Your task to perform on an android device: Go to display settings Image 0: 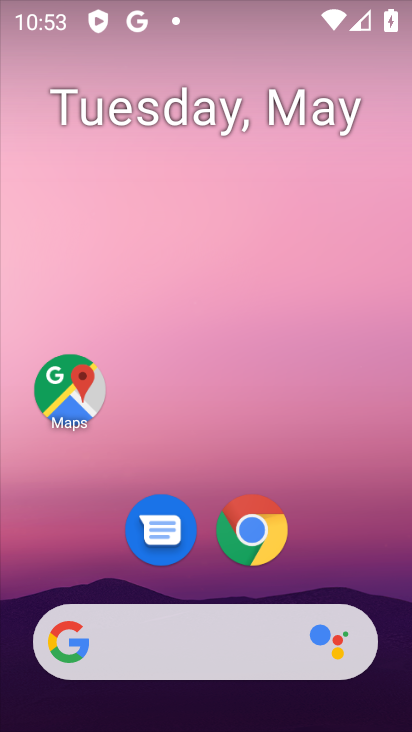
Step 0: click (355, 414)
Your task to perform on an android device: Go to display settings Image 1: 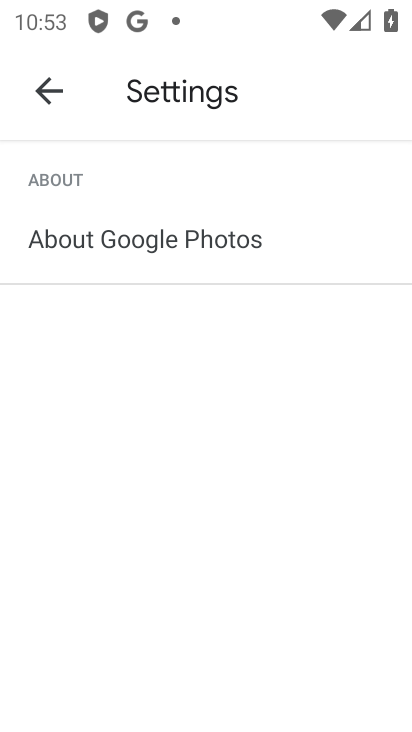
Step 1: press home button
Your task to perform on an android device: Go to display settings Image 2: 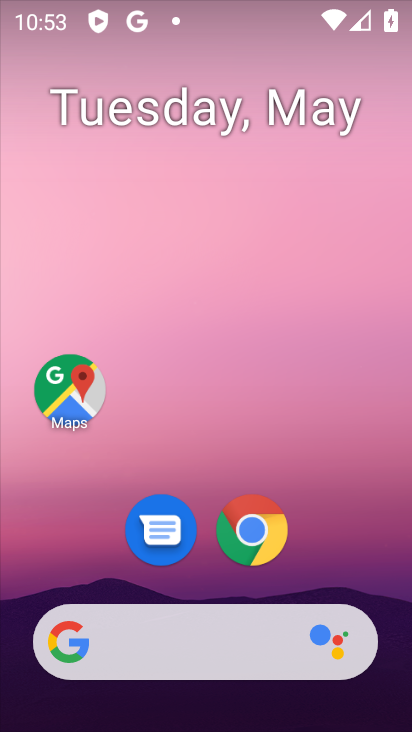
Step 2: drag from (349, 523) to (350, 92)
Your task to perform on an android device: Go to display settings Image 3: 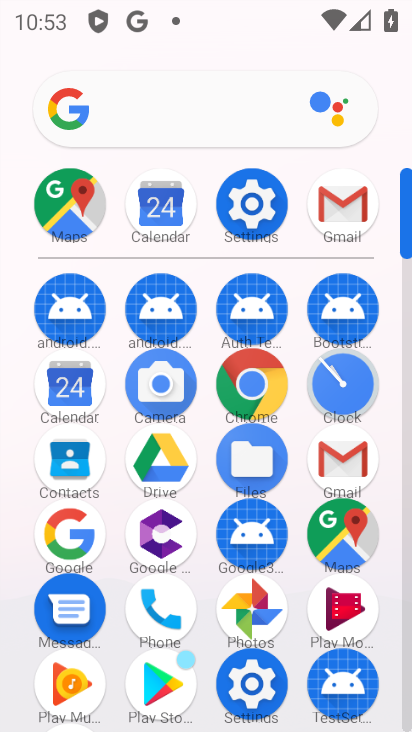
Step 3: click (271, 193)
Your task to perform on an android device: Go to display settings Image 4: 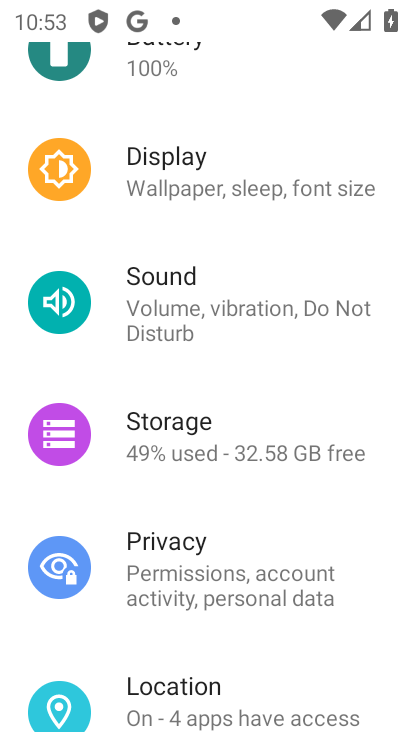
Step 4: click (220, 190)
Your task to perform on an android device: Go to display settings Image 5: 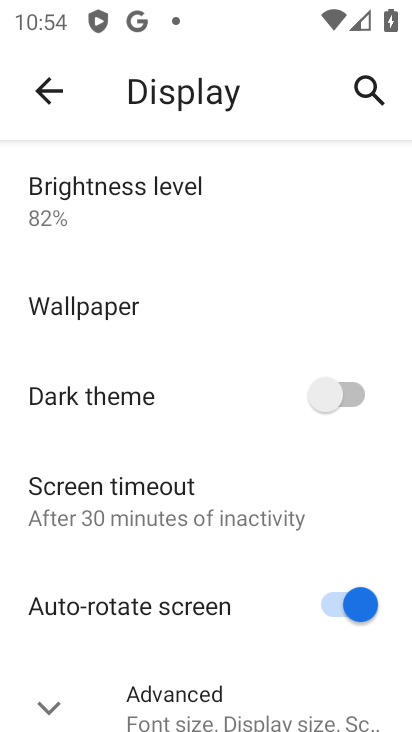
Step 5: task complete